Your task to perform on an android device: Open Maps and search for coffee Image 0: 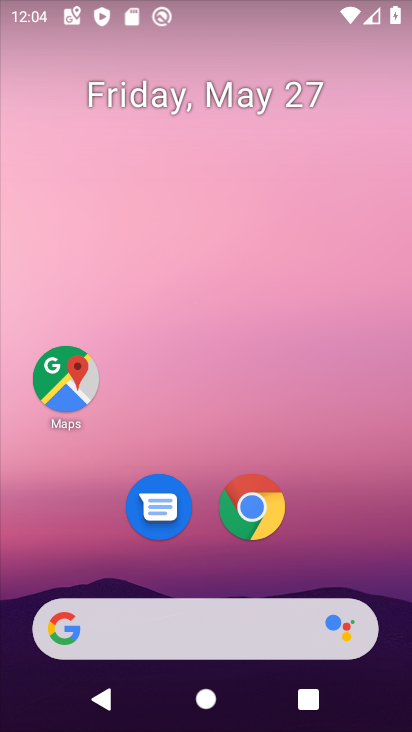
Step 0: click (68, 380)
Your task to perform on an android device: Open Maps and search for coffee Image 1: 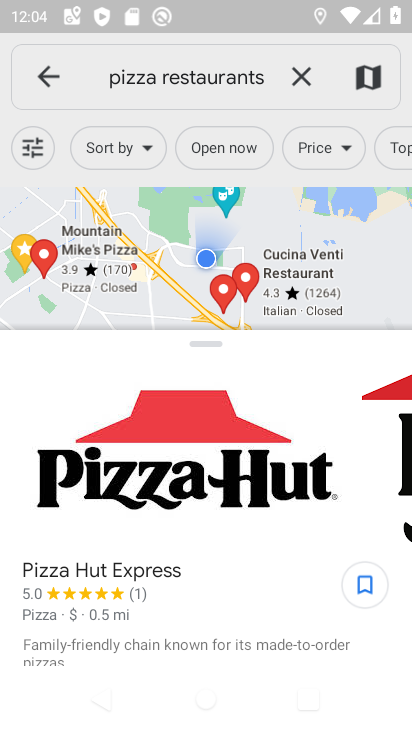
Step 1: click (270, 80)
Your task to perform on an android device: Open Maps and search for coffee Image 2: 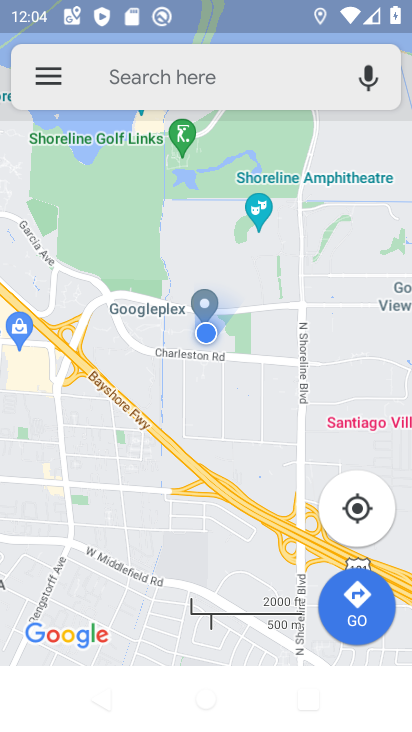
Step 2: click (262, 75)
Your task to perform on an android device: Open Maps and search for coffee Image 3: 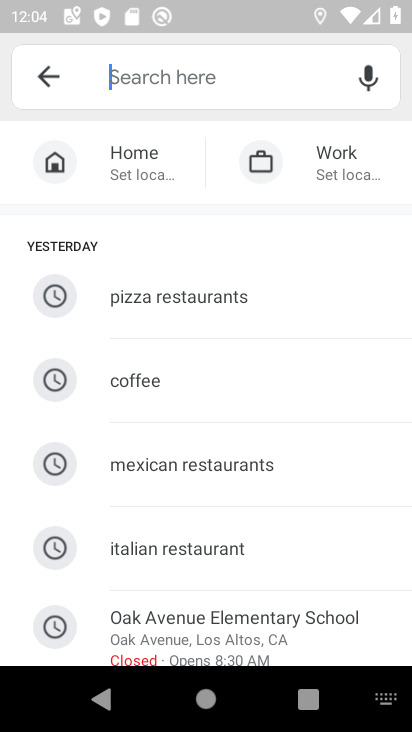
Step 3: click (153, 374)
Your task to perform on an android device: Open Maps and search for coffee Image 4: 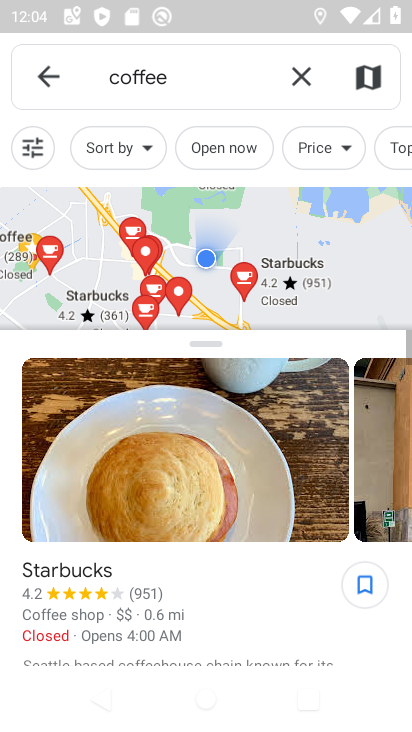
Step 4: task complete